Your task to perform on an android device: Go to display settings Image 0: 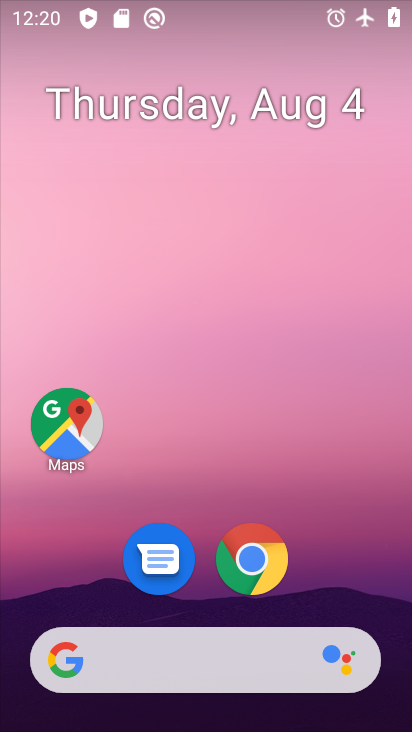
Step 0: drag from (167, 671) to (176, 108)
Your task to perform on an android device: Go to display settings Image 1: 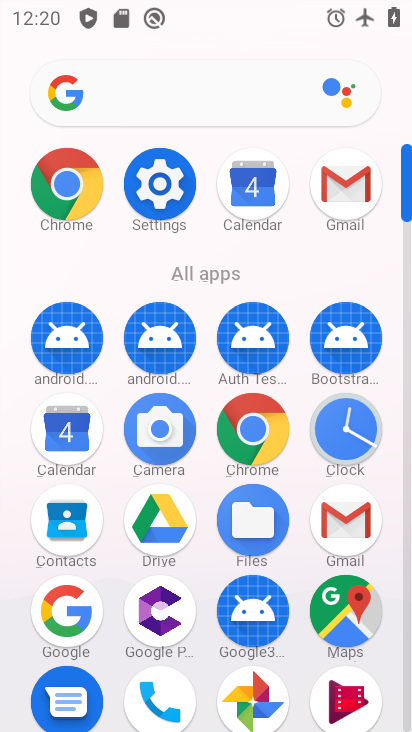
Step 1: click (161, 183)
Your task to perform on an android device: Go to display settings Image 2: 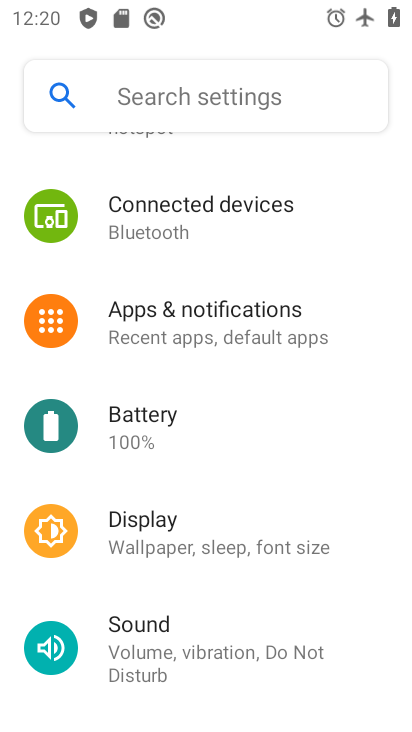
Step 2: drag from (218, 507) to (232, 404)
Your task to perform on an android device: Go to display settings Image 3: 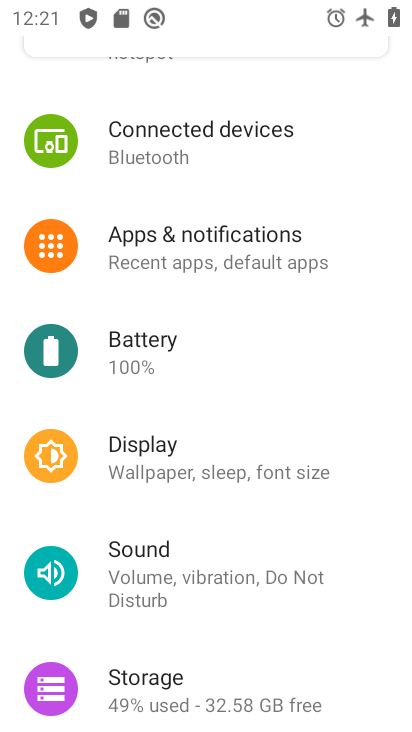
Step 3: click (243, 467)
Your task to perform on an android device: Go to display settings Image 4: 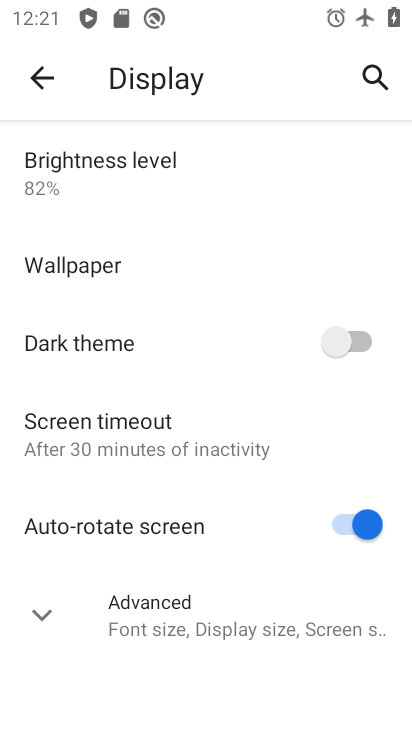
Step 4: task complete